Your task to perform on an android device: Open the map Image 0: 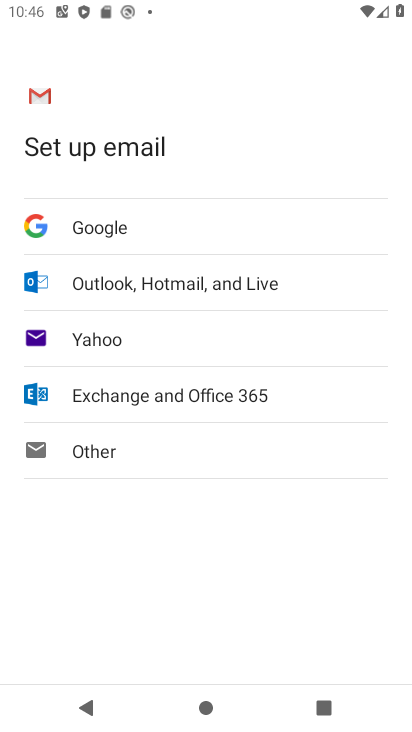
Step 0: press home button
Your task to perform on an android device: Open the map Image 1: 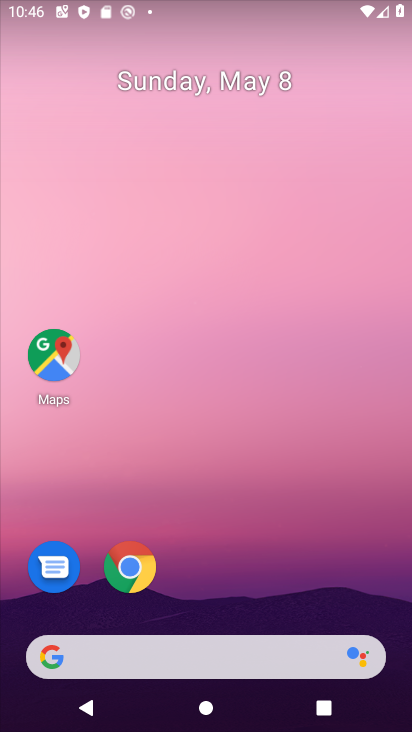
Step 1: click (53, 354)
Your task to perform on an android device: Open the map Image 2: 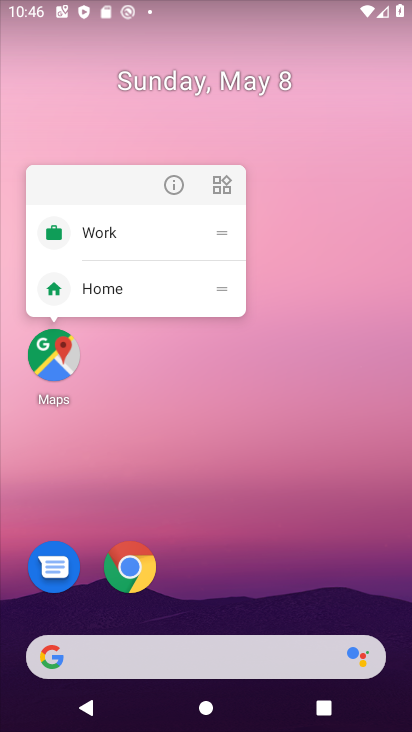
Step 2: click (53, 354)
Your task to perform on an android device: Open the map Image 3: 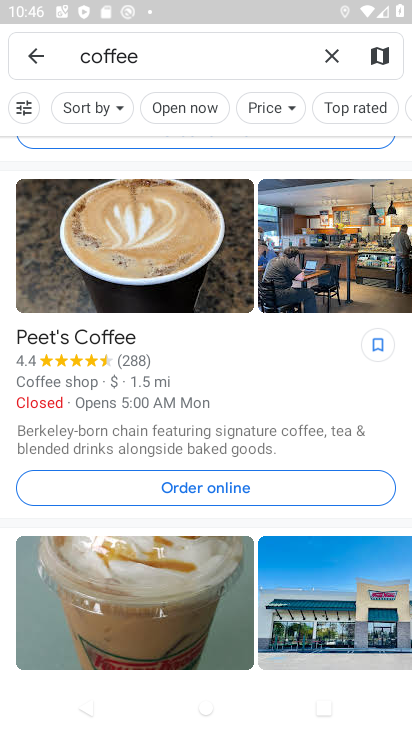
Step 3: click (39, 58)
Your task to perform on an android device: Open the map Image 4: 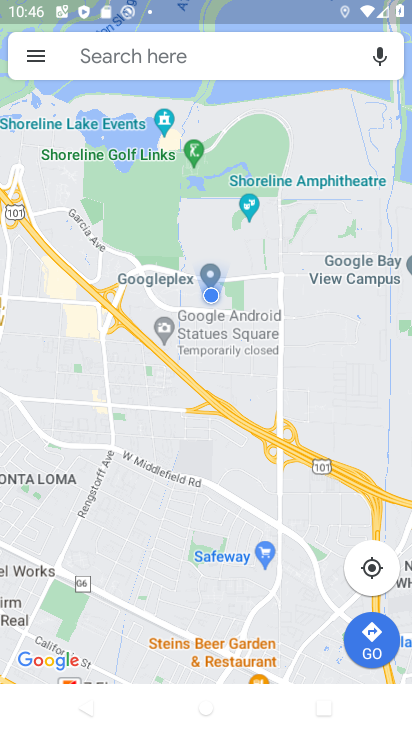
Step 4: task complete